Your task to perform on an android device: Search for vegetarian restaurants on Maps Image 0: 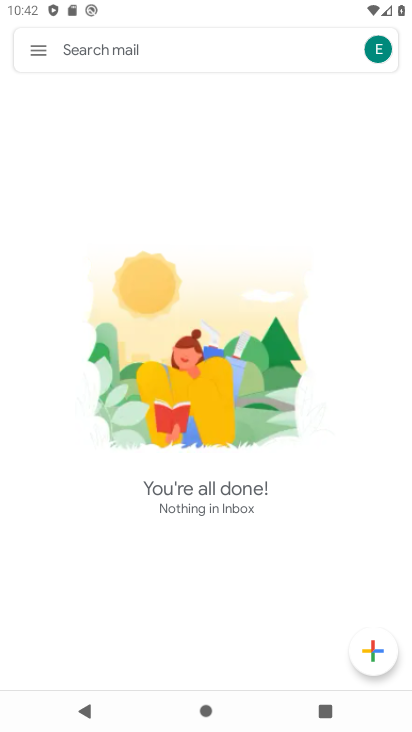
Step 0: press home button
Your task to perform on an android device: Search for vegetarian restaurants on Maps Image 1: 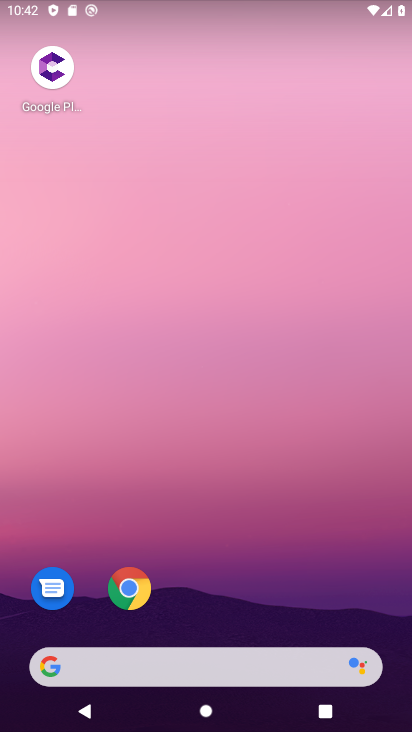
Step 1: drag from (252, 623) to (222, 64)
Your task to perform on an android device: Search for vegetarian restaurants on Maps Image 2: 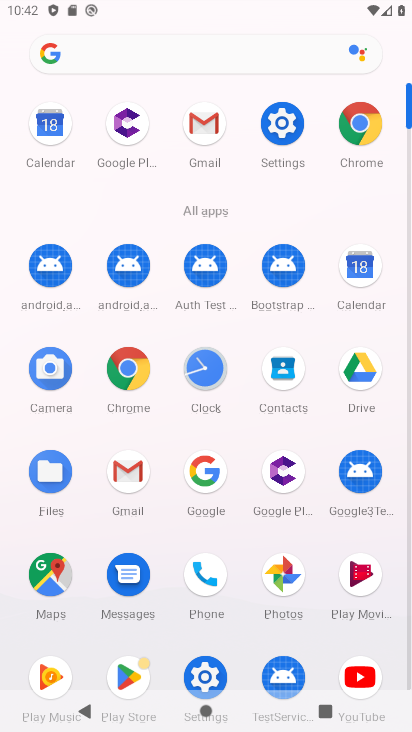
Step 2: click (22, 577)
Your task to perform on an android device: Search for vegetarian restaurants on Maps Image 3: 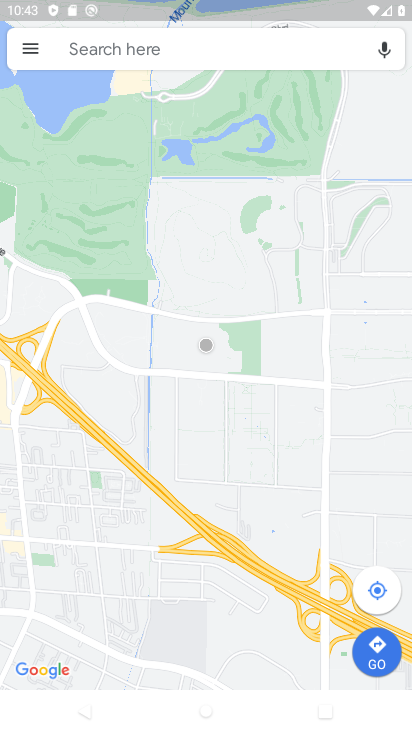
Step 3: type "vegetarian restaurants"
Your task to perform on an android device: Search for vegetarian restaurants on Maps Image 4: 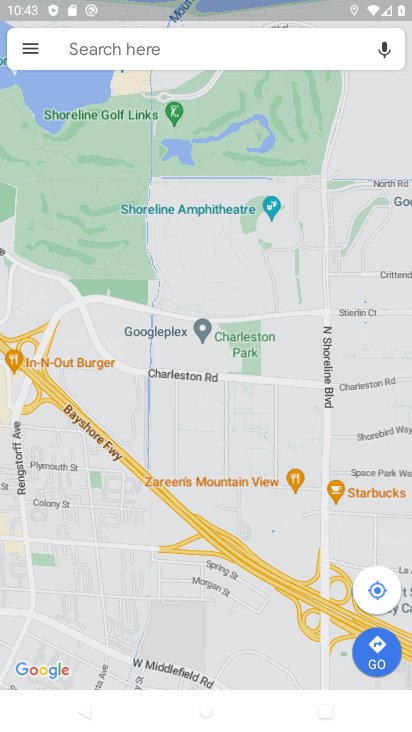
Step 4: type ""
Your task to perform on an android device: Search for vegetarian restaurants on Maps Image 5: 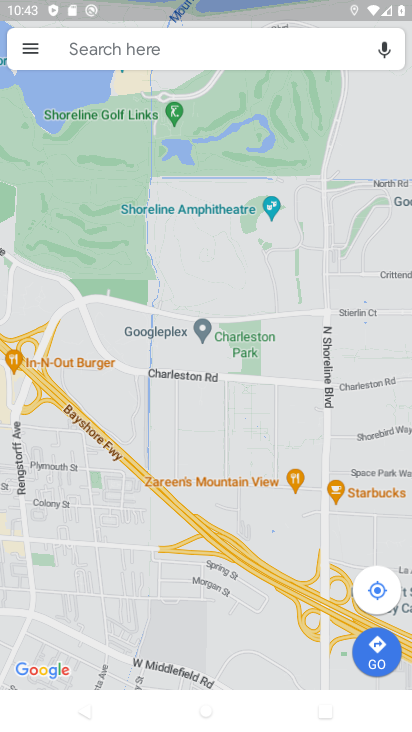
Step 5: click (279, 55)
Your task to perform on an android device: Search for vegetarian restaurants on Maps Image 6: 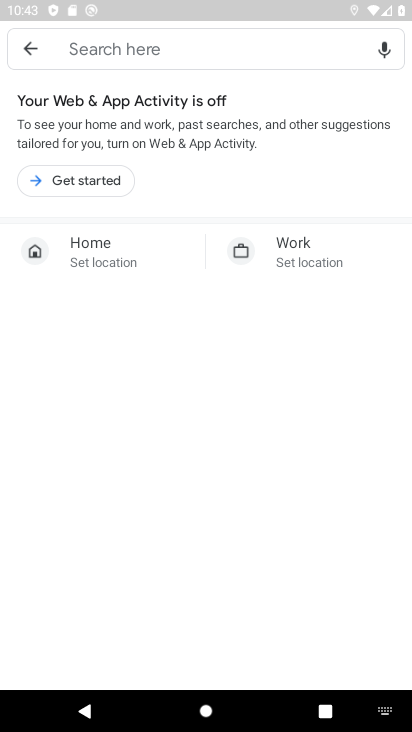
Step 6: type "vegetarian restaurants"
Your task to perform on an android device: Search for vegetarian restaurants on Maps Image 7: 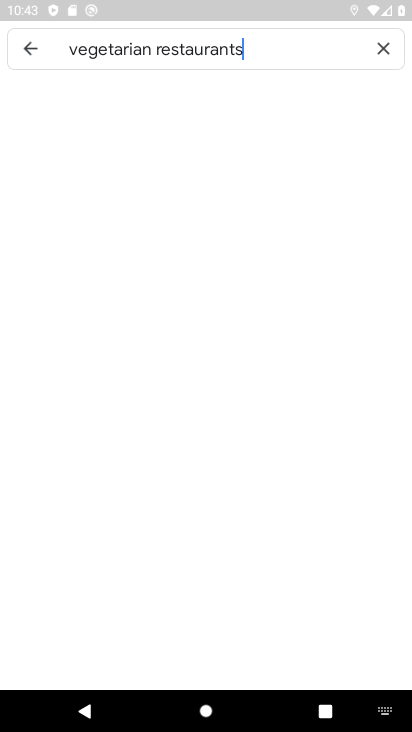
Step 7: type ""
Your task to perform on an android device: Search for vegetarian restaurants on Maps Image 8: 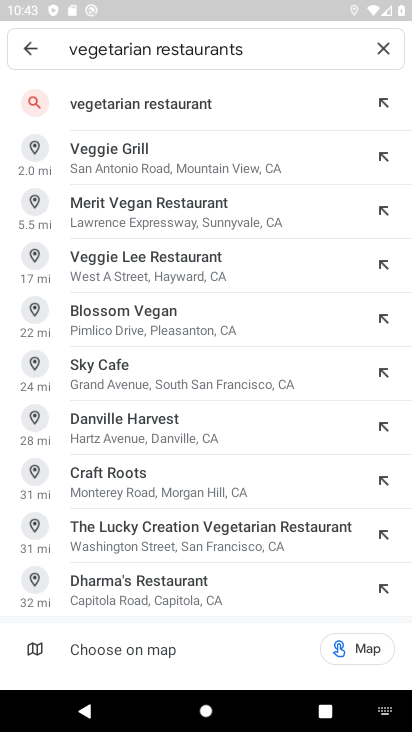
Step 8: click (128, 97)
Your task to perform on an android device: Search for vegetarian restaurants on Maps Image 9: 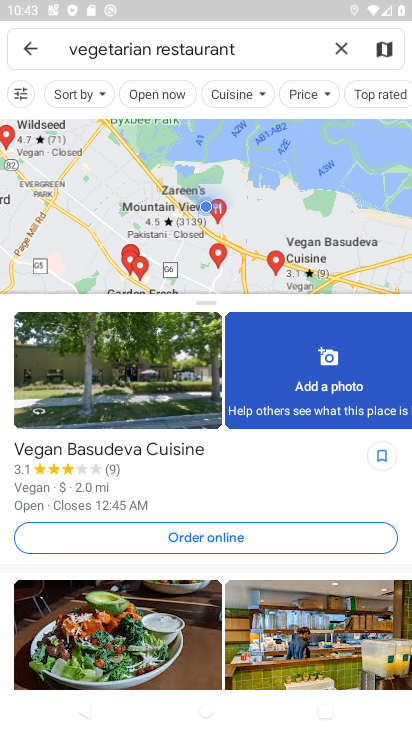
Step 9: task complete